Your task to perform on an android device: delete a single message in the gmail app Image 0: 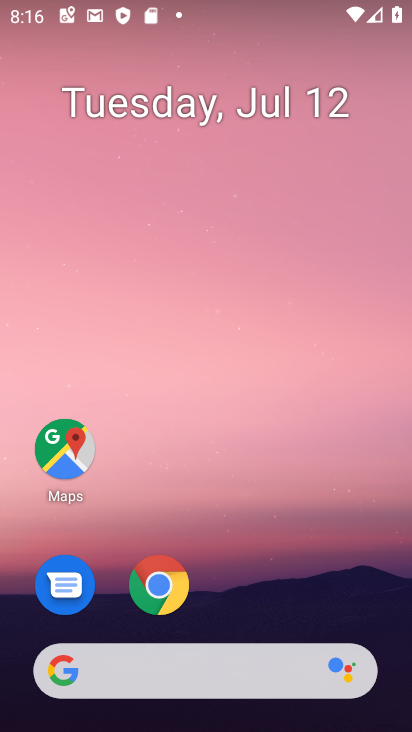
Step 0: drag from (311, 588) to (330, 72)
Your task to perform on an android device: delete a single message in the gmail app Image 1: 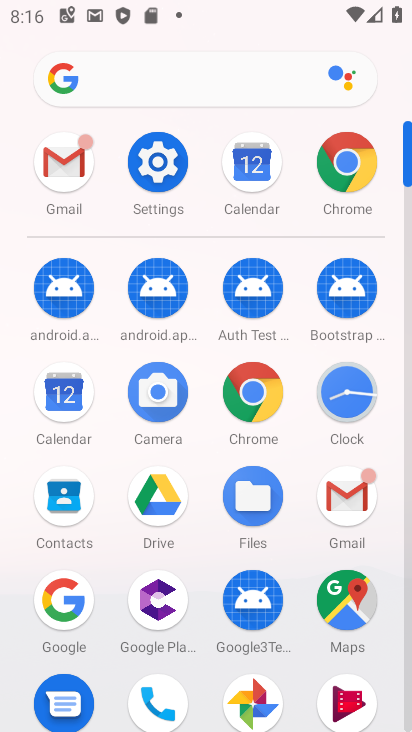
Step 1: click (79, 156)
Your task to perform on an android device: delete a single message in the gmail app Image 2: 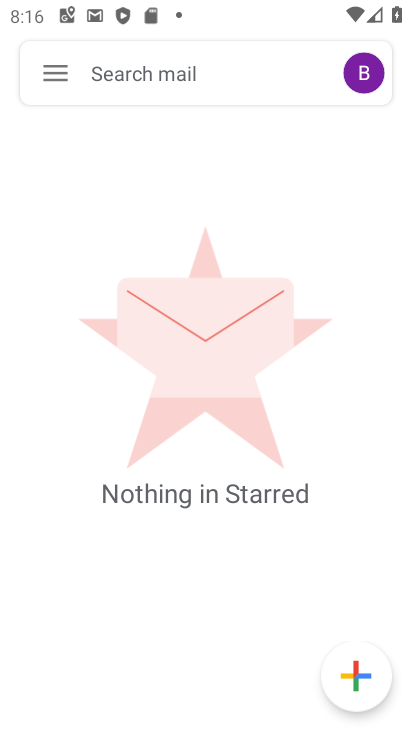
Step 2: click (56, 65)
Your task to perform on an android device: delete a single message in the gmail app Image 3: 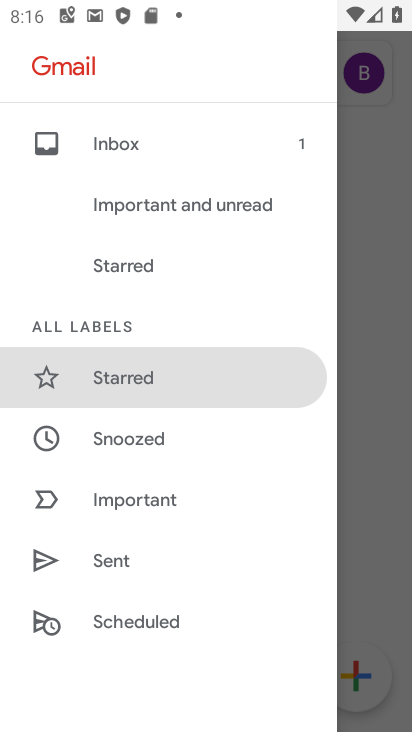
Step 3: click (117, 135)
Your task to perform on an android device: delete a single message in the gmail app Image 4: 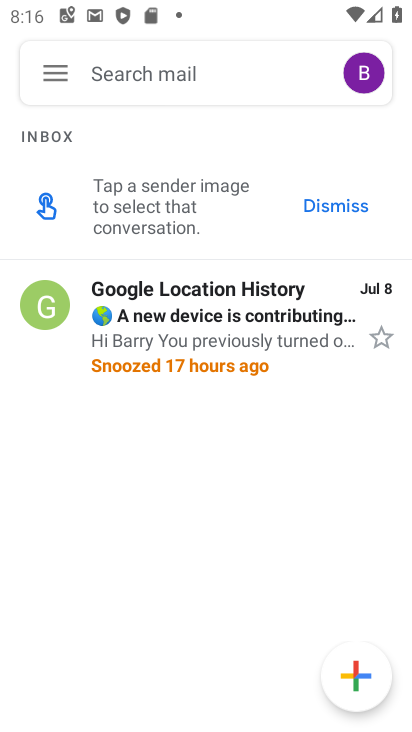
Step 4: click (117, 133)
Your task to perform on an android device: delete a single message in the gmail app Image 5: 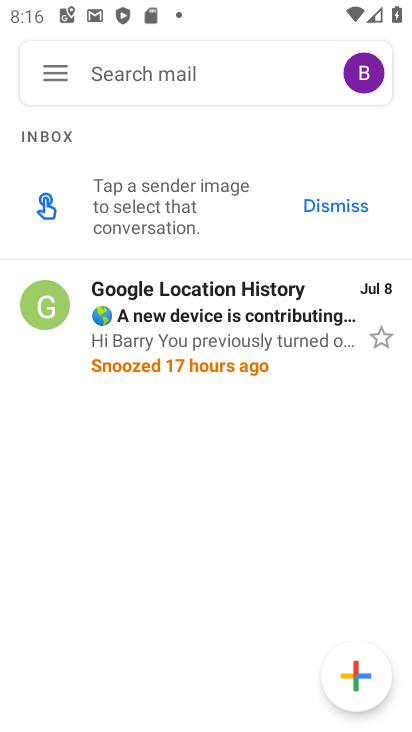
Step 5: click (119, 139)
Your task to perform on an android device: delete a single message in the gmail app Image 6: 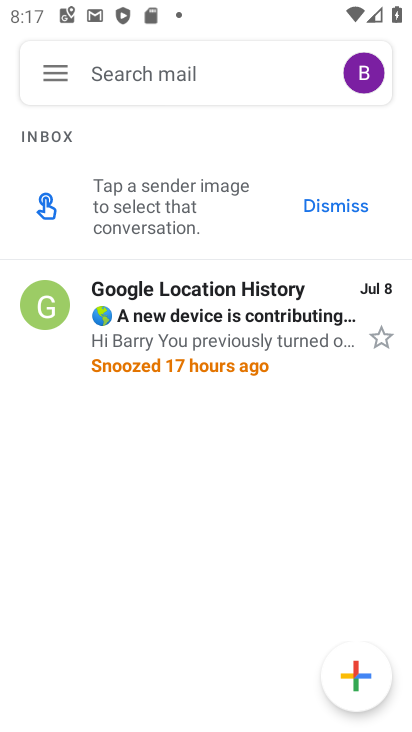
Step 6: click (116, 303)
Your task to perform on an android device: delete a single message in the gmail app Image 7: 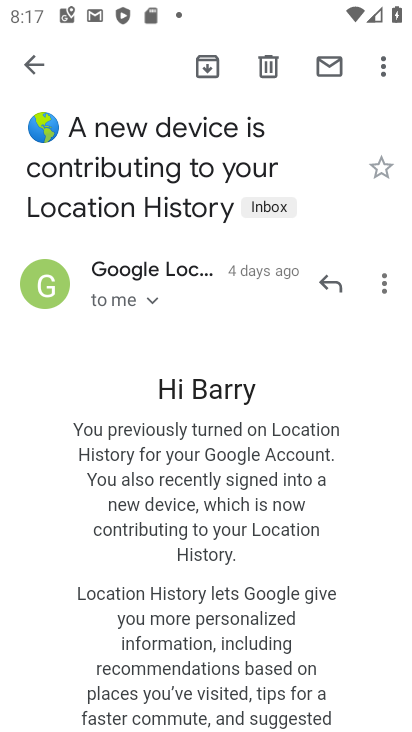
Step 7: click (268, 69)
Your task to perform on an android device: delete a single message in the gmail app Image 8: 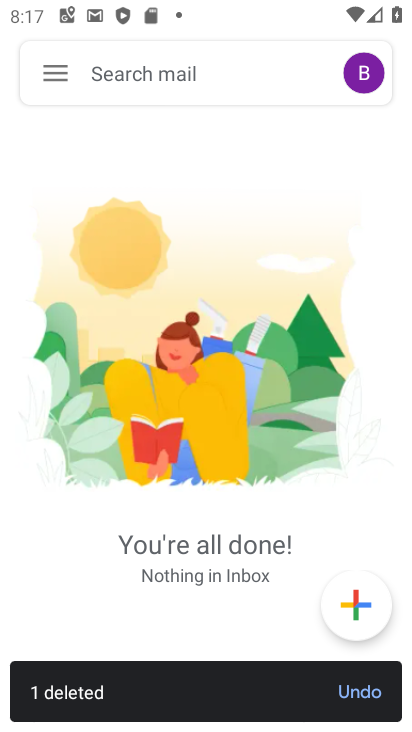
Step 8: task complete